Your task to perform on an android device: delete a single message in the gmail app Image 0: 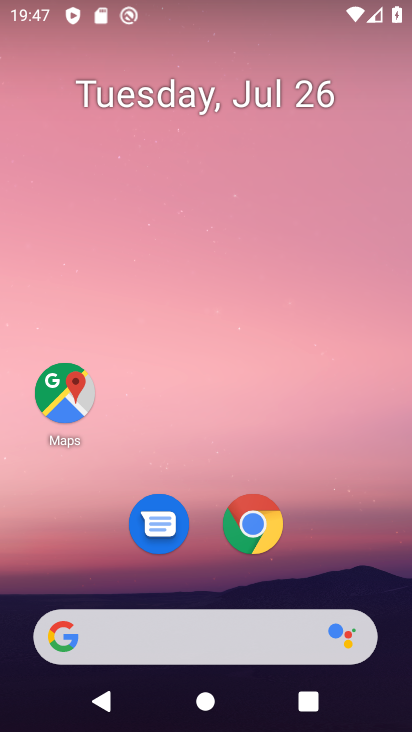
Step 0: drag from (216, 593) to (363, 142)
Your task to perform on an android device: delete a single message in the gmail app Image 1: 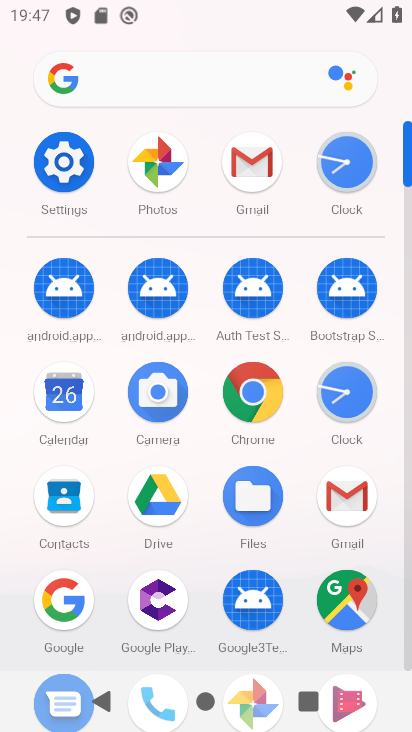
Step 1: click (262, 168)
Your task to perform on an android device: delete a single message in the gmail app Image 2: 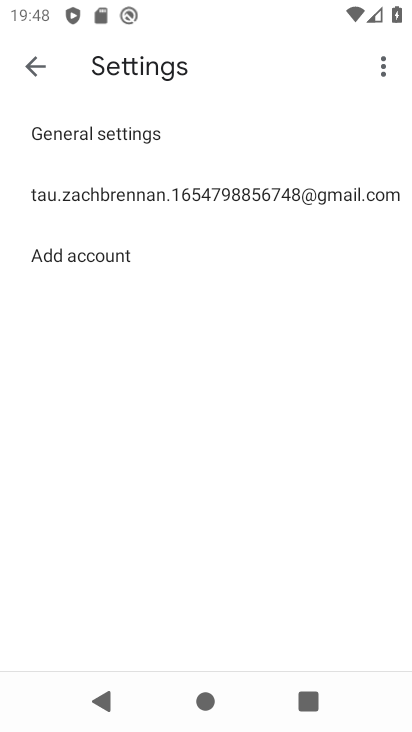
Step 2: click (41, 66)
Your task to perform on an android device: delete a single message in the gmail app Image 3: 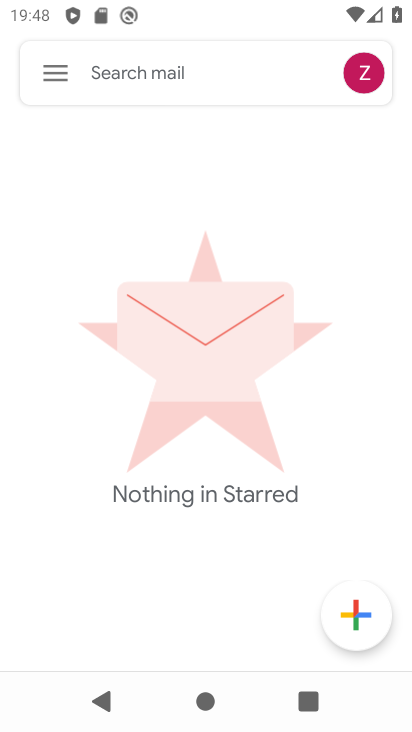
Step 3: click (52, 64)
Your task to perform on an android device: delete a single message in the gmail app Image 4: 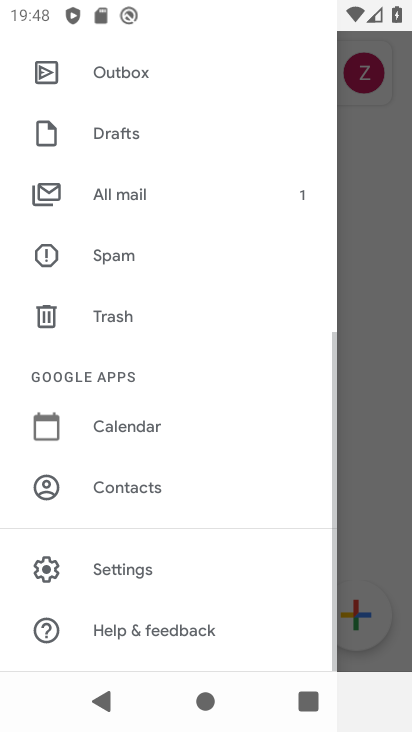
Step 4: drag from (228, 189) to (231, 586)
Your task to perform on an android device: delete a single message in the gmail app Image 5: 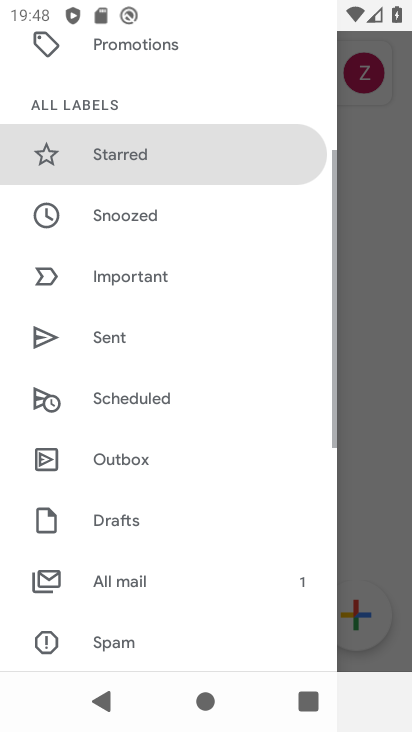
Step 5: click (188, 590)
Your task to perform on an android device: delete a single message in the gmail app Image 6: 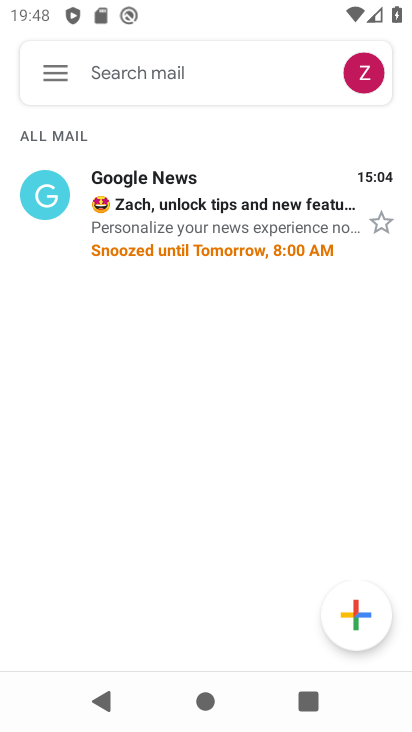
Step 6: click (49, 199)
Your task to perform on an android device: delete a single message in the gmail app Image 7: 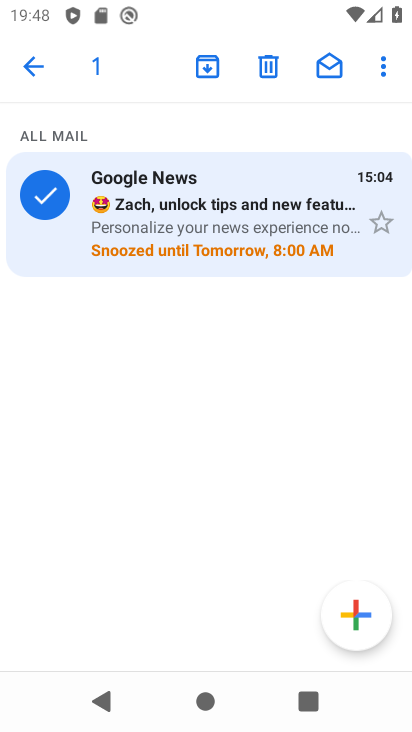
Step 7: click (266, 65)
Your task to perform on an android device: delete a single message in the gmail app Image 8: 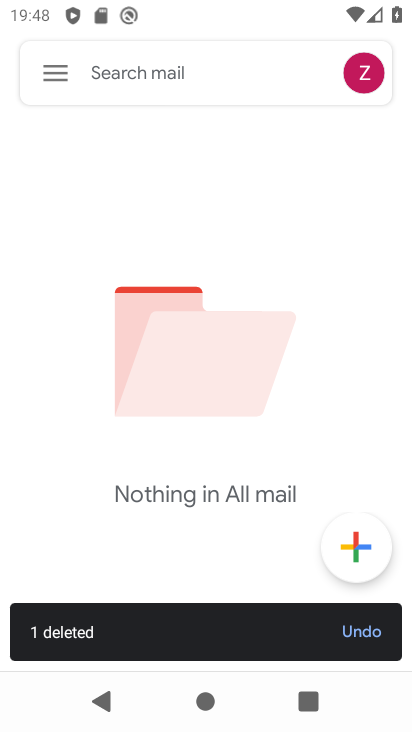
Step 8: task complete